Your task to perform on an android device: delete browsing data in the chrome app Image 0: 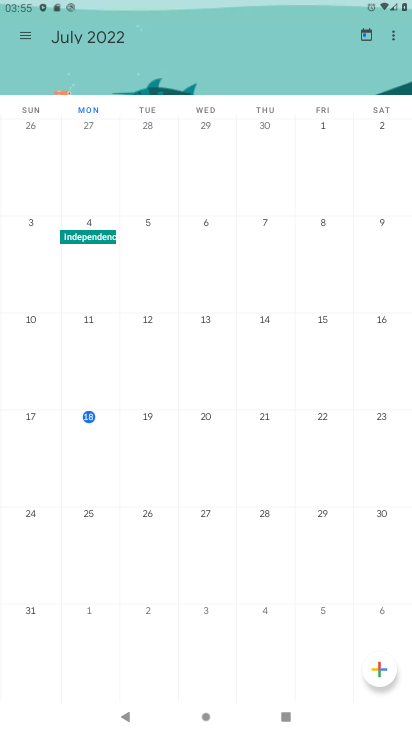
Step 0: press home button
Your task to perform on an android device: delete browsing data in the chrome app Image 1: 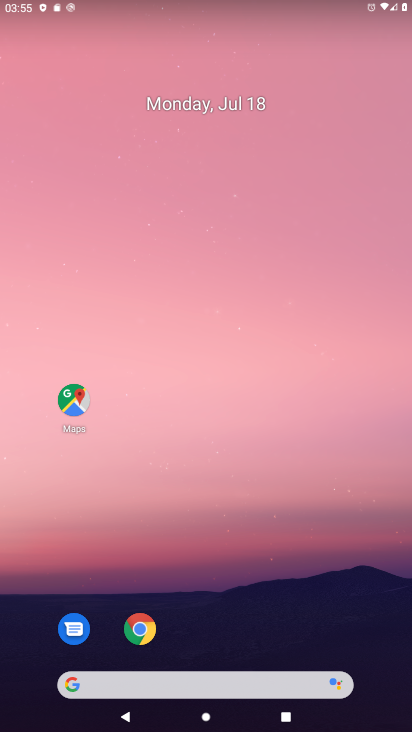
Step 1: click (147, 630)
Your task to perform on an android device: delete browsing data in the chrome app Image 2: 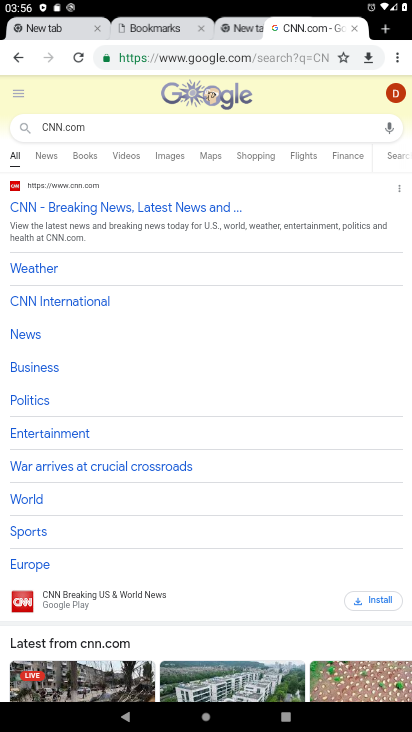
Step 2: click (394, 53)
Your task to perform on an android device: delete browsing data in the chrome app Image 3: 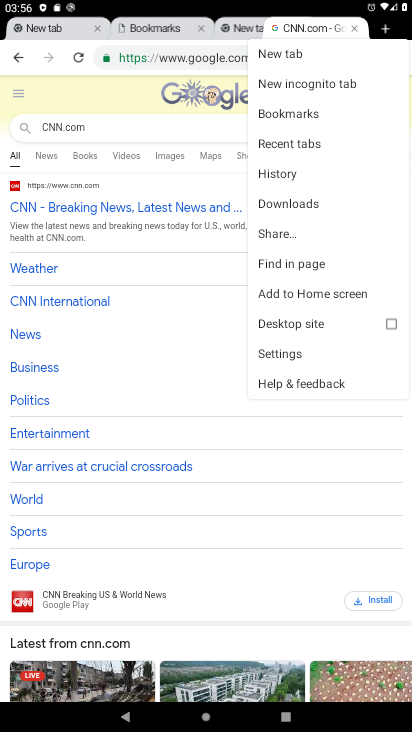
Step 3: click (277, 175)
Your task to perform on an android device: delete browsing data in the chrome app Image 4: 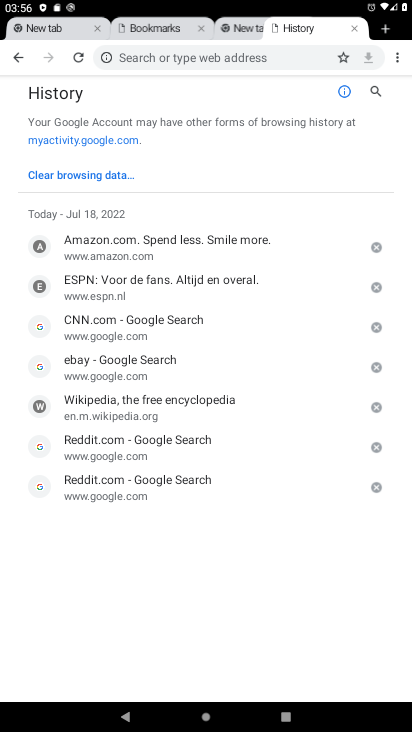
Step 4: click (64, 174)
Your task to perform on an android device: delete browsing data in the chrome app Image 5: 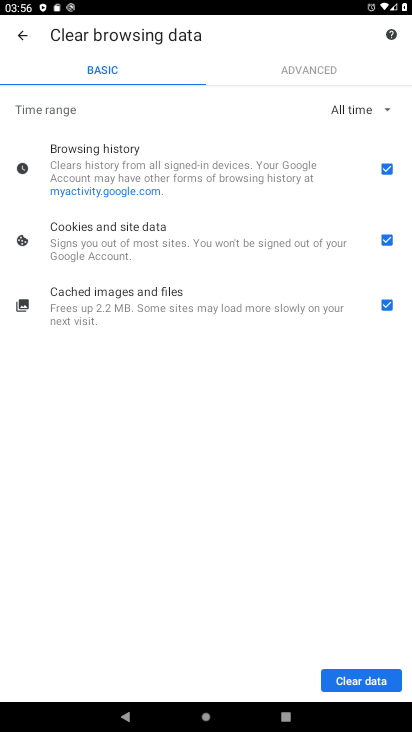
Step 5: click (355, 667)
Your task to perform on an android device: delete browsing data in the chrome app Image 6: 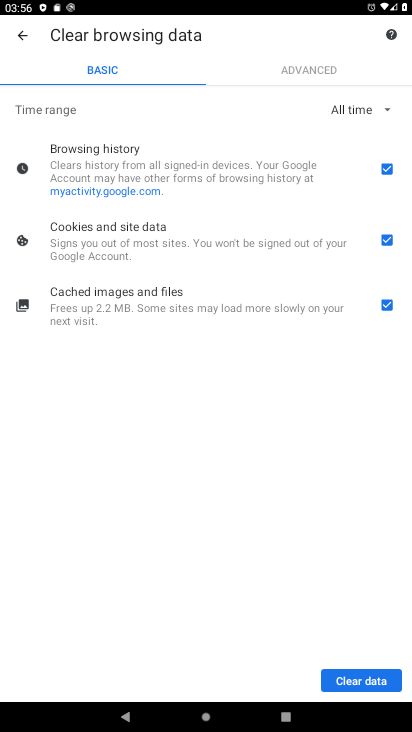
Step 6: click (360, 677)
Your task to perform on an android device: delete browsing data in the chrome app Image 7: 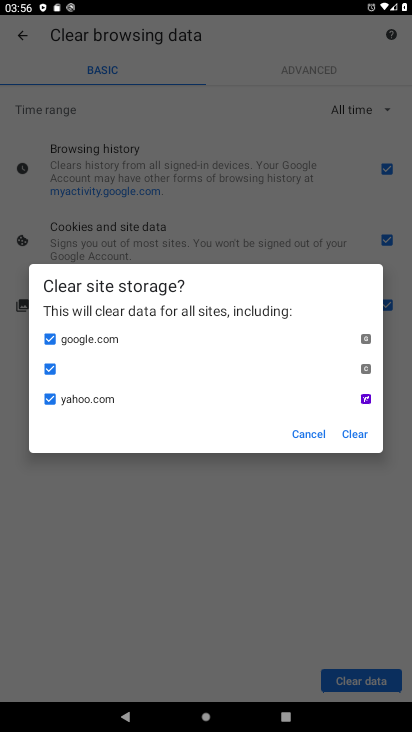
Step 7: click (357, 436)
Your task to perform on an android device: delete browsing data in the chrome app Image 8: 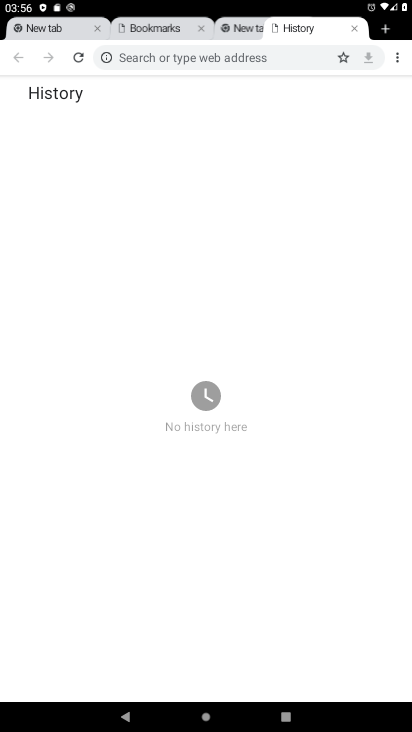
Step 8: task complete